Your task to perform on an android device: choose inbox layout in the gmail app Image 0: 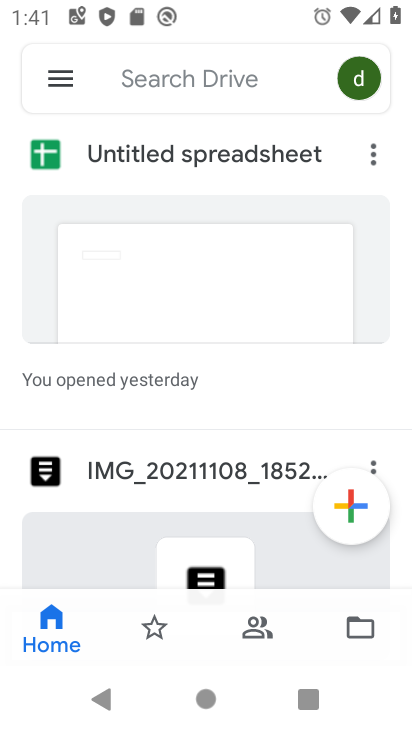
Step 0: press home button
Your task to perform on an android device: choose inbox layout in the gmail app Image 1: 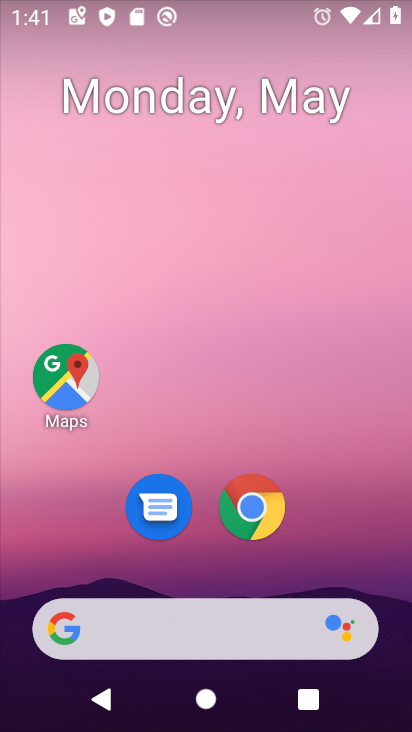
Step 1: drag from (236, 730) to (216, 87)
Your task to perform on an android device: choose inbox layout in the gmail app Image 2: 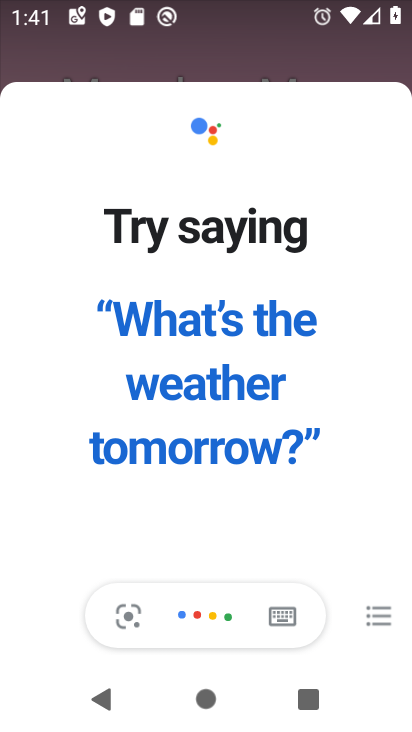
Step 2: press home button
Your task to perform on an android device: choose inbox layout in the gmail app Image 3: 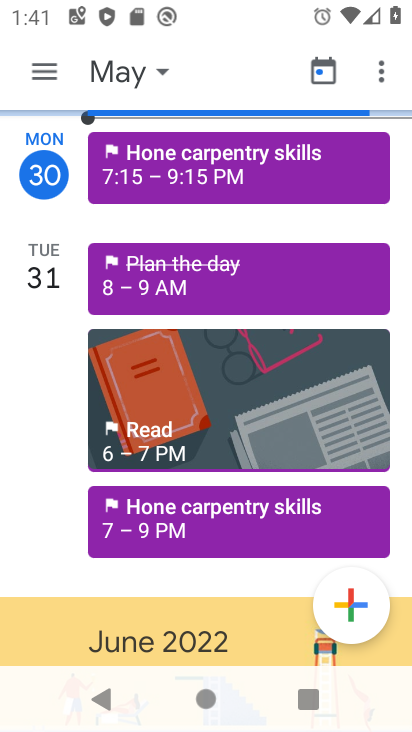
Step 3: press home button
Your task to perform on an android device: choose inbox layout in the gmail app Image 4: 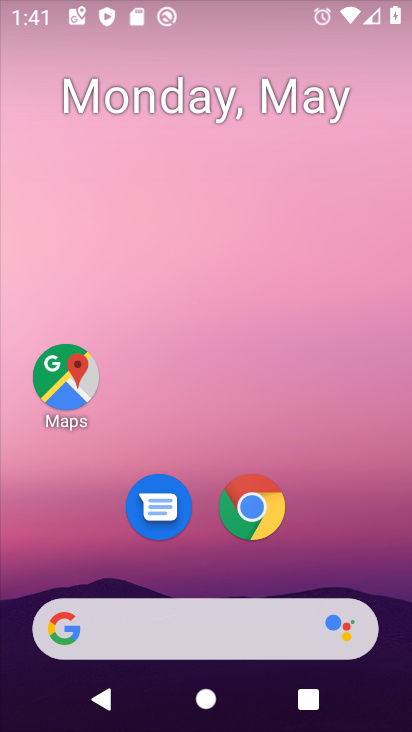
Step 4: drag from (229, 722) to (220, 6)
Your task to perform on an android device: choose inbox layout in the gmail app Image 5: 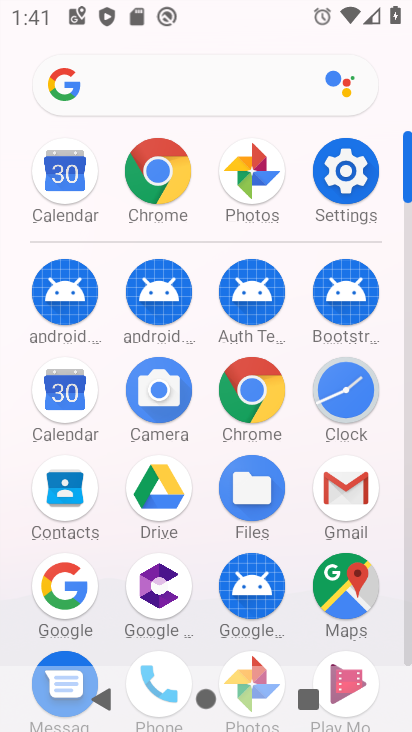
Step 5: click (344, 494)
Your task to perform on an android device: choose inbox layout in the gmail app Image 6: 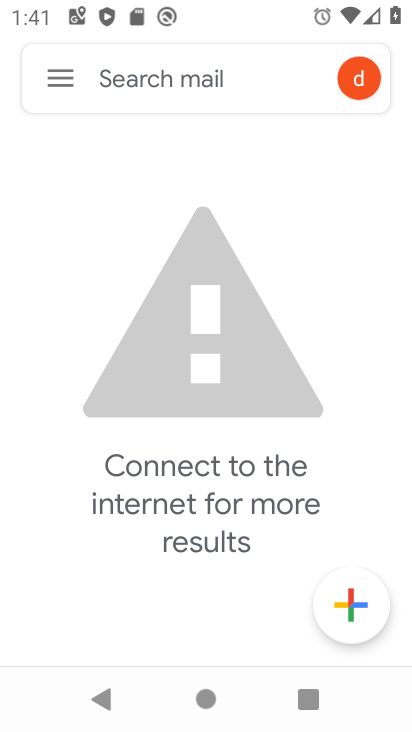
Step 6: click (56, 80)
Your task to perform on an android device: choose inbox layout in the gmail app Image 7: 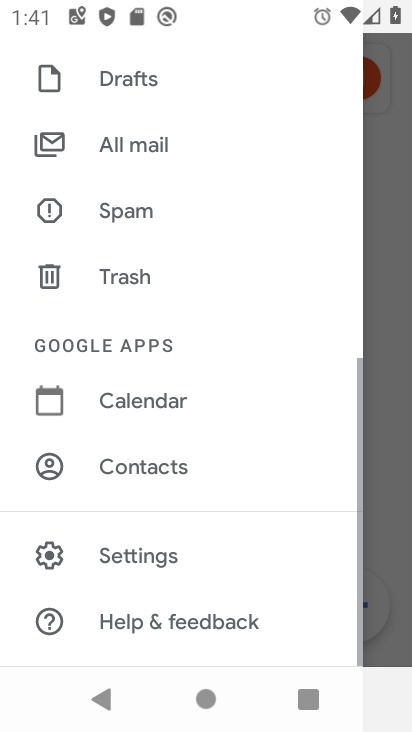
Step 7: drag from (174, 212) to (196, 576)
Your task to perform on an android device: choose inbox layout in the gmail app Image 8: 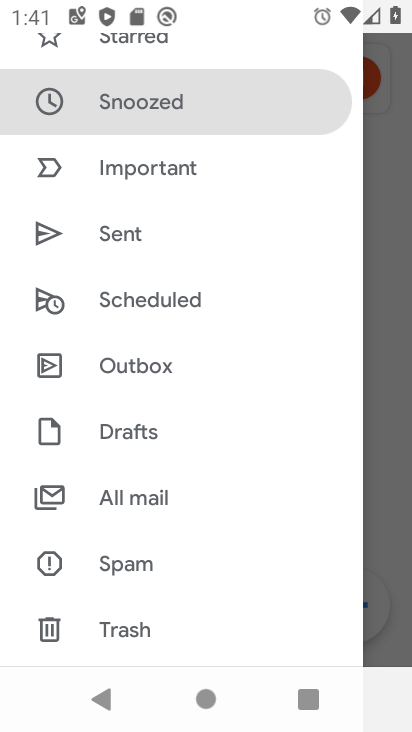
Step 8: drag from (201, 153) to (200, 507)
Your task to perform on an android device: choose inbox layout in the gmail app Image 9: 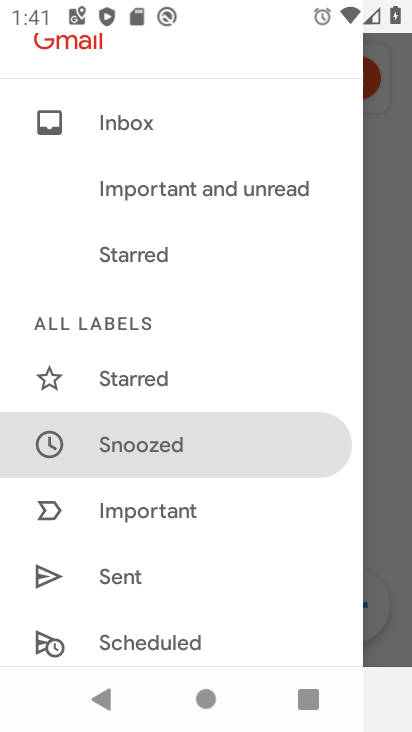
Step 9: drag from (166, 591) to (149, 239)
Your task to perform on an android device: choose inbox layout in the gmail app Image 10: 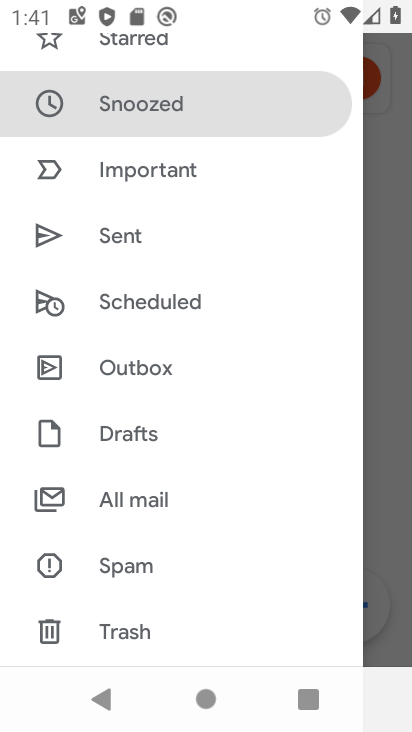
Step 10: drag from (127, 641) to (131, 241)
Your task to perform on an android device: choose inbox layout in the gmail app Image 11: 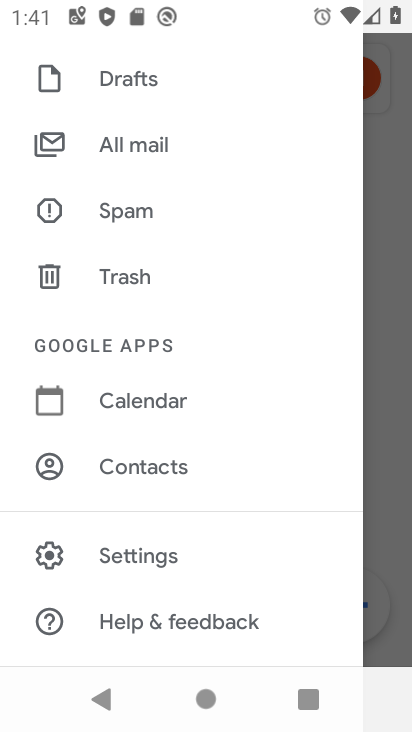
Step 11: click (132, 555)
Your task to perform on an android device: choose inbox layout in the gmail app Image 12: 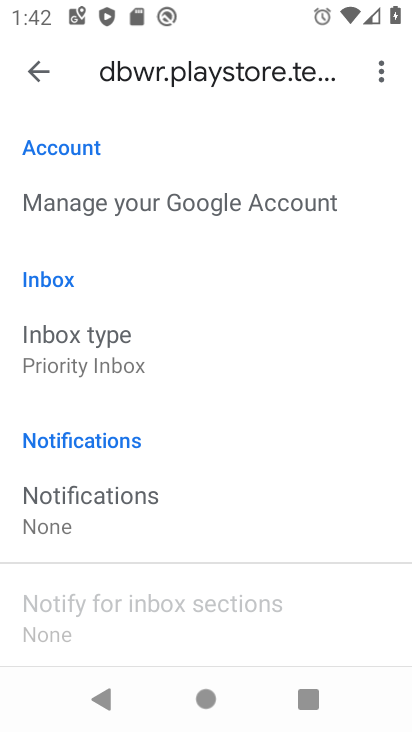
Step 12: drag from (124, 567) to (120, 426)
Your task to perform on an android device: choose inbox layout in the gmail app Image 13: 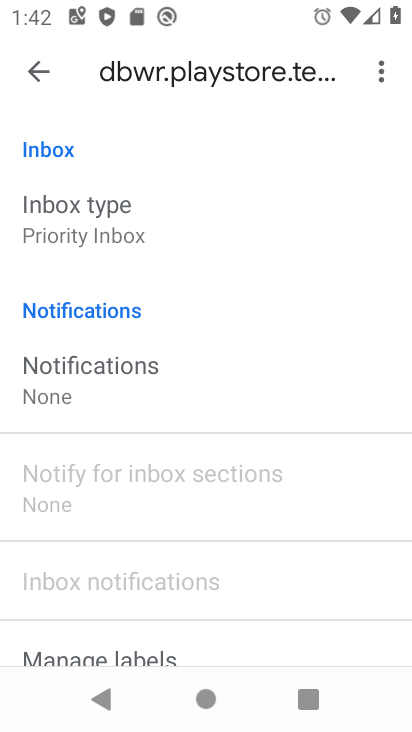
Step 13: click (87, 238)
Your task to perform on an android device: choose inbox layout in the gmail app Image 14: 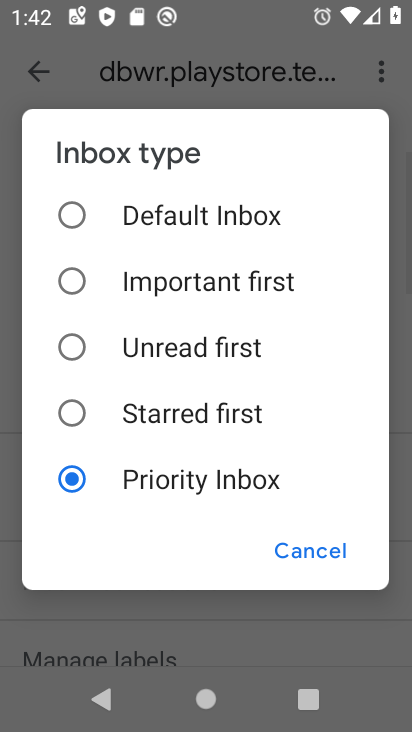
Step 14: click (74, 218)
Your task to perform on an android device: choose inbox layout in the gmail app Image 15: 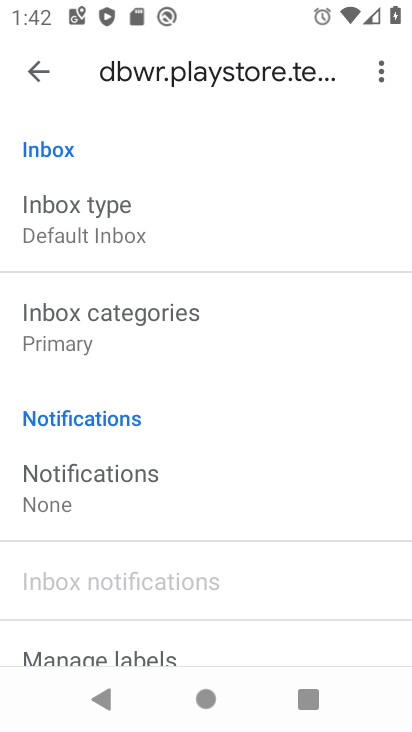
Step 15: task complete